Your task to perform on an android device: What's the weather going to be tomorrow? Image 0: 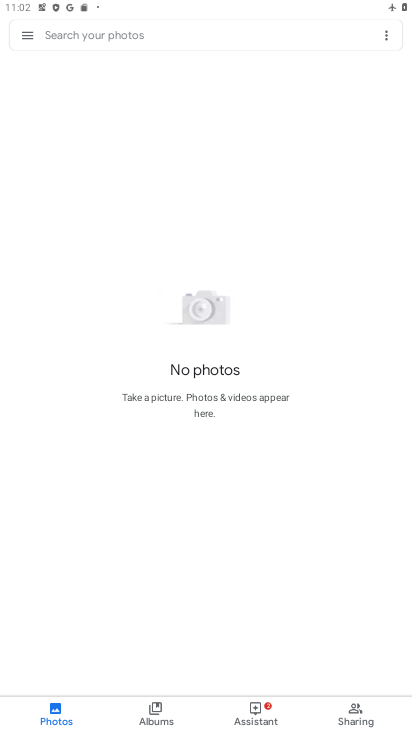
Step 0: press home button
Your task to perform on an android device: What's the weather going to be tomorrow? Image 1: 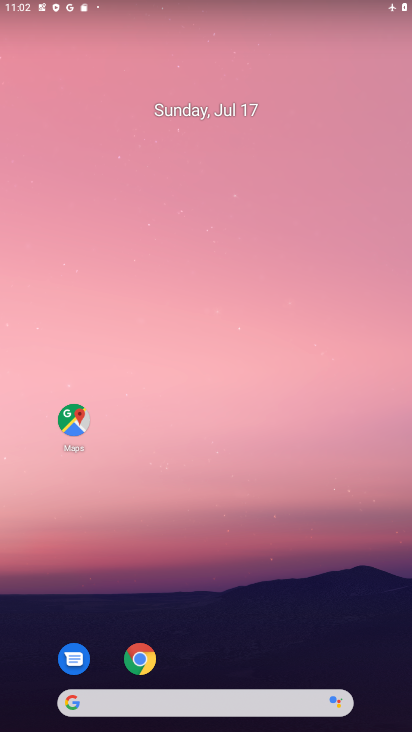
Step 1: click (151, 708)
Your task to perform on an android device: What's the weather going to be tomorrow? Image 2: 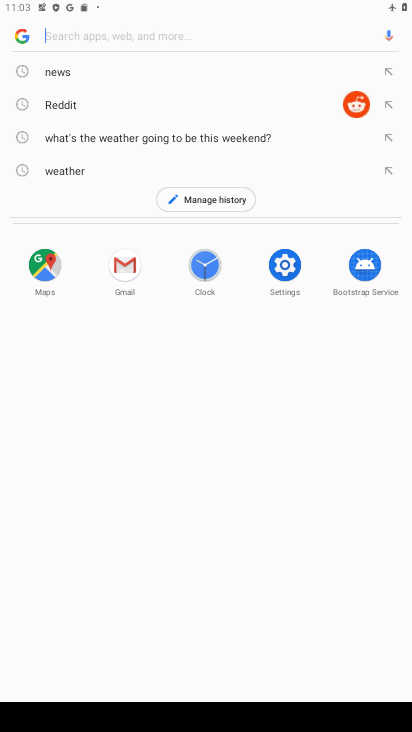
Step 2: type "tomorrow weather"
Your task to perform on an android device: What's the weather going to be tomorrow? Image 3: 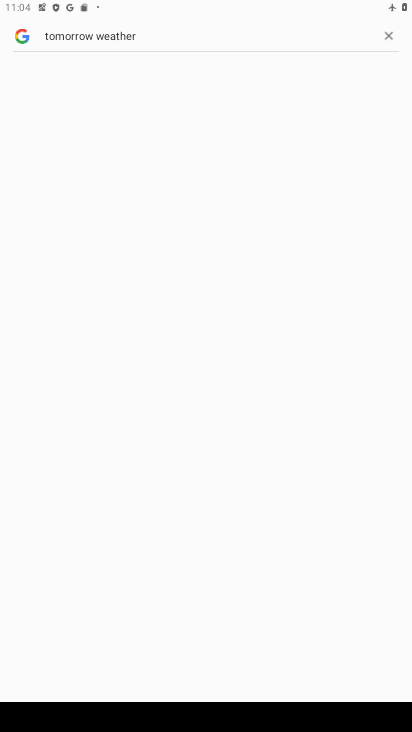
Step 3: press home button
Your task to perform on an android device: What's the weather going to be tomorrow? Image 4: 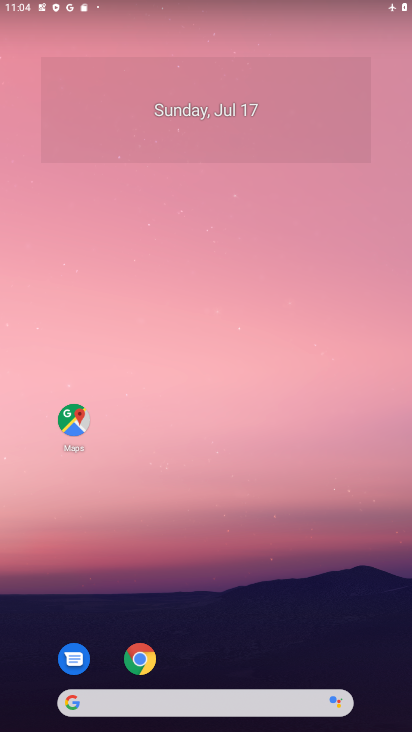
Step 4: click (189, 708)
Your task to perform on an android device: What's the weather going to be tomorrow? Image 5: 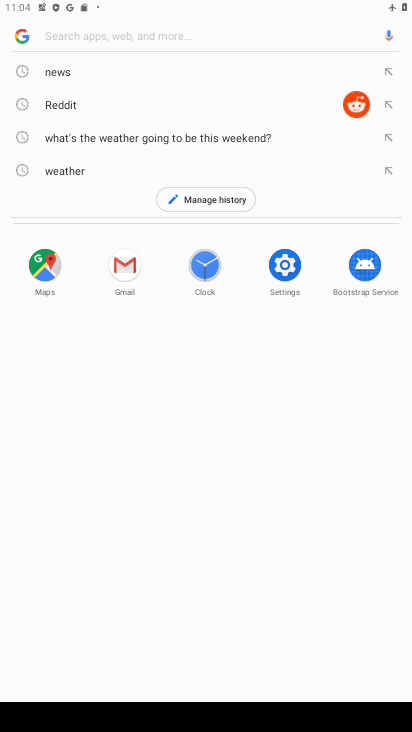
Step 5: click (103, 173)
Your task to perform on an android device: What's the weather going to be tomorrow? Image 6: 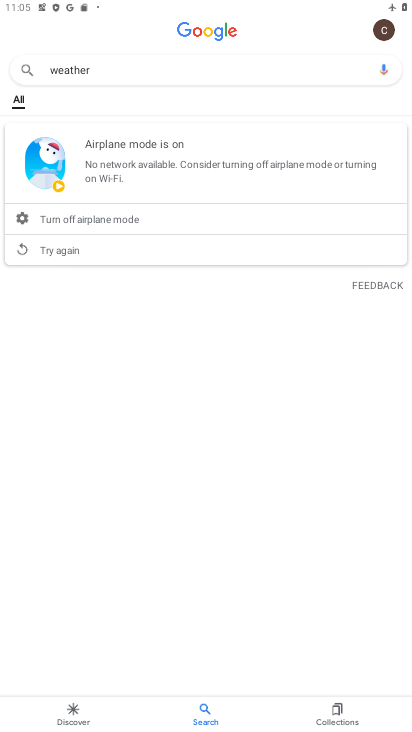
Step 6: drag from (250, 498) to (260, 632)
Your task to perform on an android device: What's the weather going to be tomorrow? Image 7: 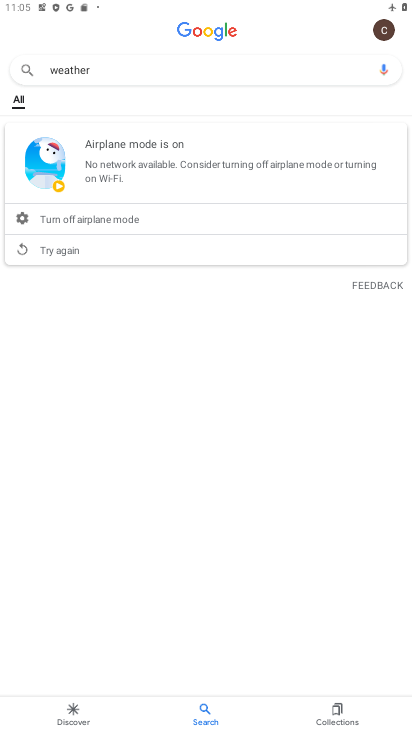
Step 7: drag from (345, 8) to (337, 633)
Your task to perform on an android device: What's the weather going to be tomorrow? Image 8: 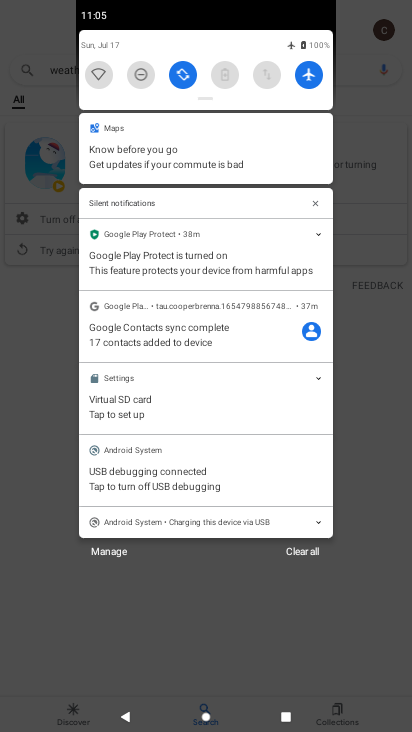
Step 8: click (317, 69)
Your task to perform on an android device: What's the weather going to be tomorrow? Image 9: 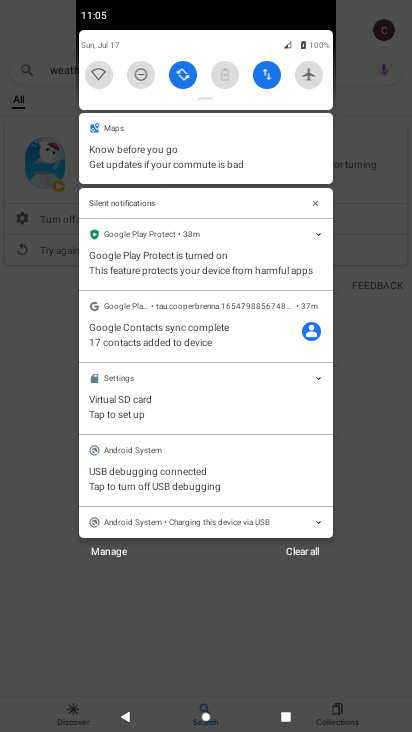
Step 9: task complete